Your task to perform on an android device: What is the recent news? Image 0: 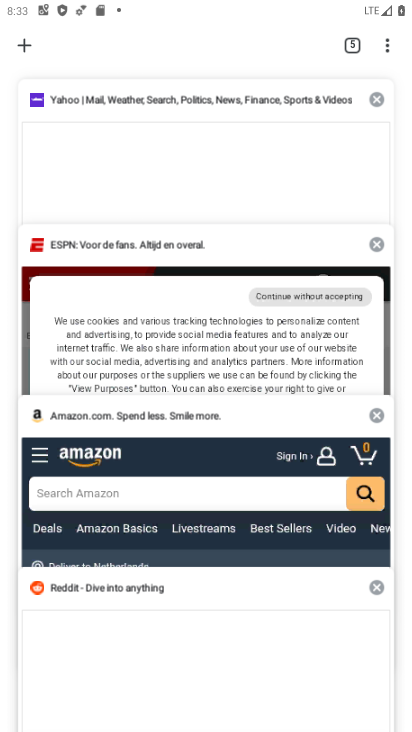
Step 0: press home button
Your task to perform on an android device: What is the recent news? Image 1: 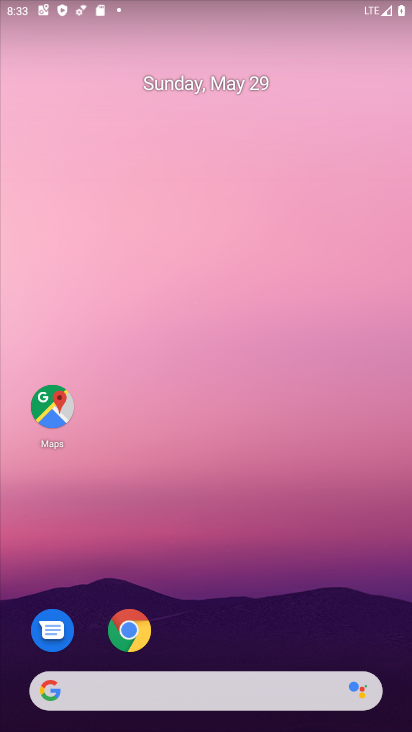
Step 1: click (289, 711)
Your task to perform on an android device: What is the recent news? Image 2: 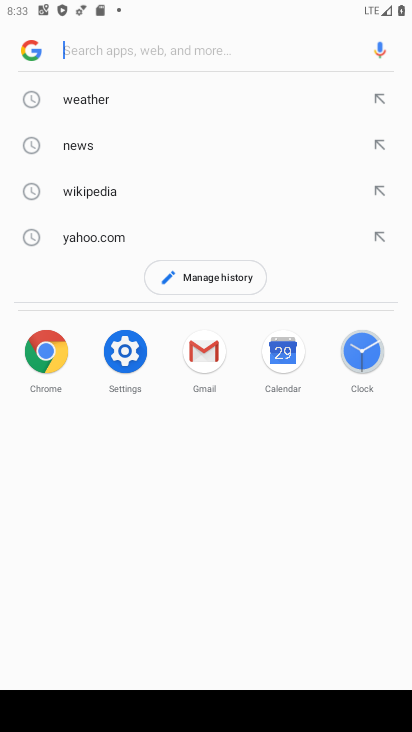
Step 2: click (54, 141)
Your task to perform on an android device: What is the recent news? Image 3: 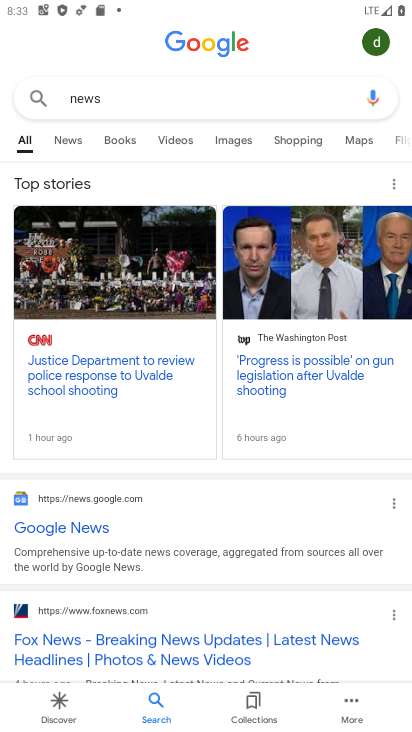
Step 3: click (57, 143)
Your task to perform on an android device: What is the recent news? Image 4: 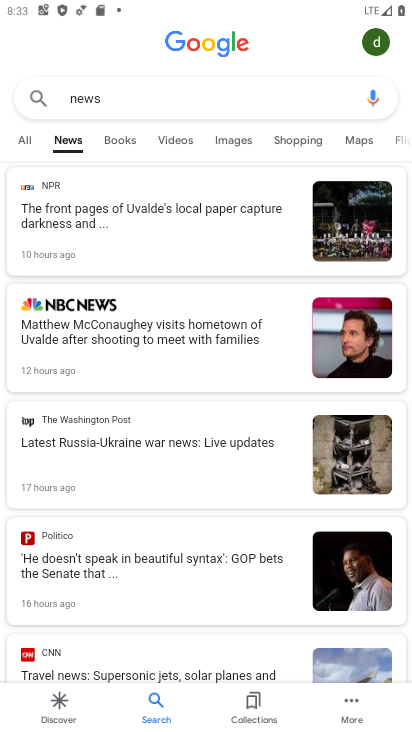
Step 4: task complete